Your task to perform on an android device: Open Google Maps and go to "Timeline" Image 0: 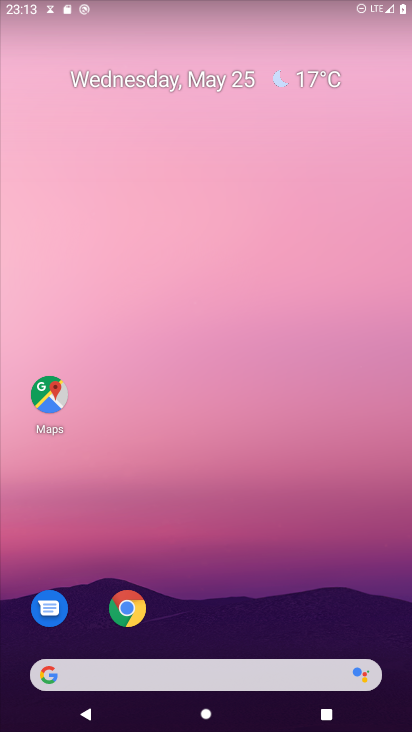
Step 0: click (48, 395)
Your task to perform on an android device: Open Google Maps and go to "Timeline" Image 1: 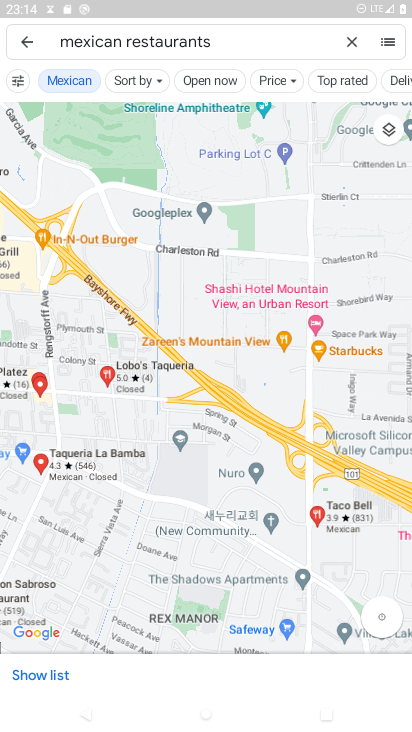
Step 1: click (20, 38)
Your task to perform on an android device: Open Google Maps and go to "Timeline" Image 2: 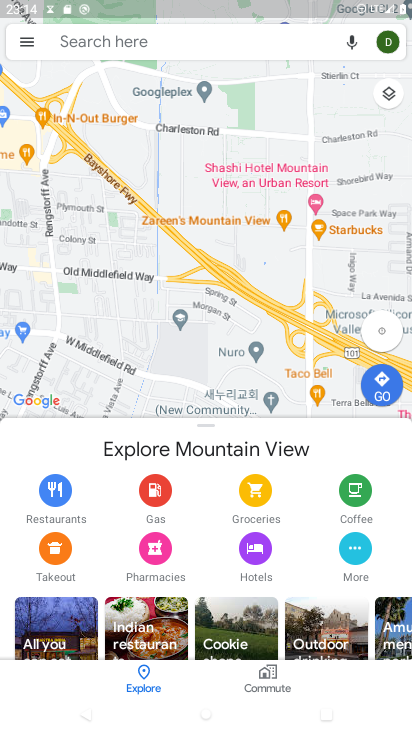
Step 2: click (25, 42)
Your task to perform on an android device: Open Google Maps and go to "Timeline" Image 3: 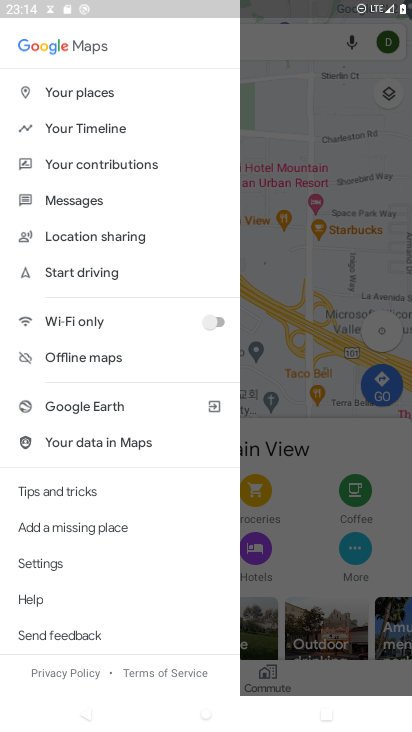
Step 3: click (128, 125)
Your task to perform on an android device: Open Google Maps and go to "Timeline" Image 4: 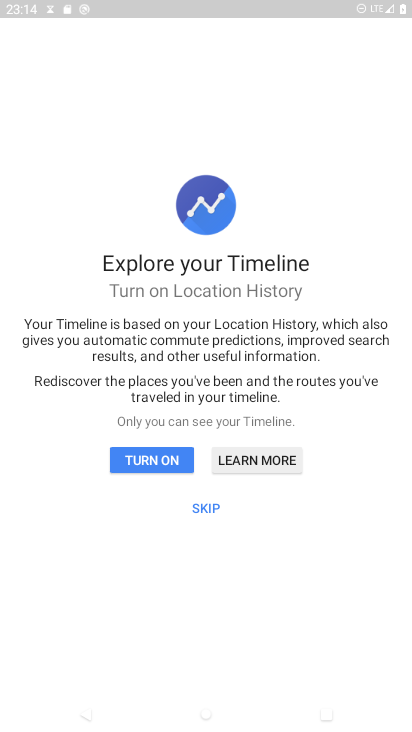
Step 4: click (205, 507)
Your task to perform on an android device: Open Google Maps and go to "Timeline" Image 5: 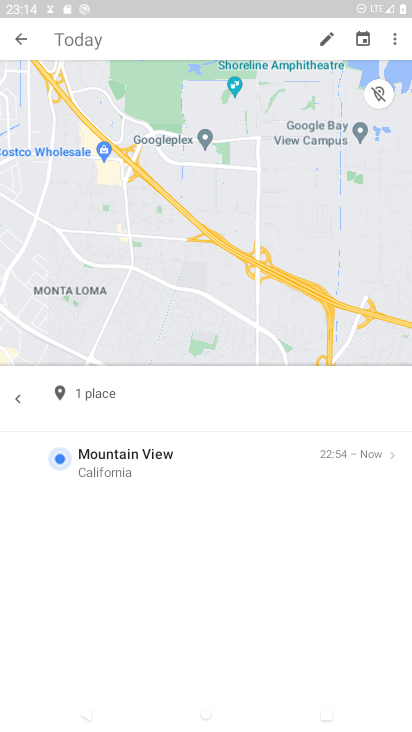
Step 5: task complete